Your task to perform on an android device: Open Amazon Image 0: 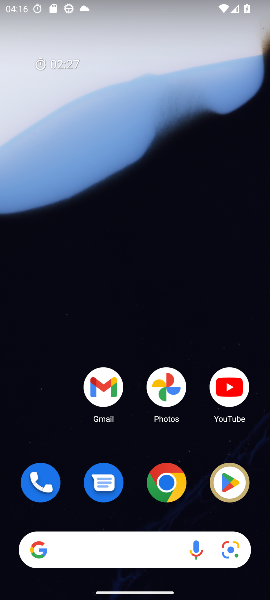
Step 0: drag from (141, 506) to (158, 56)
Your task to perform on an android device: Open Amazon Image 1: 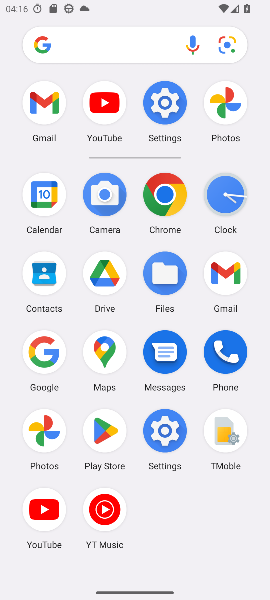
Step 1: click (163, 188)
Your task to perform on an android device: Open Amazon Image 2: 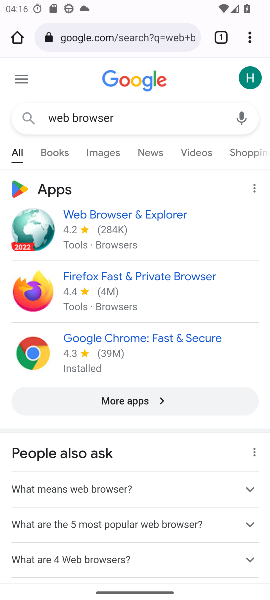
Step 2: click (146, 39)
Your task to perform on an android device: Open Amazon Image 3: 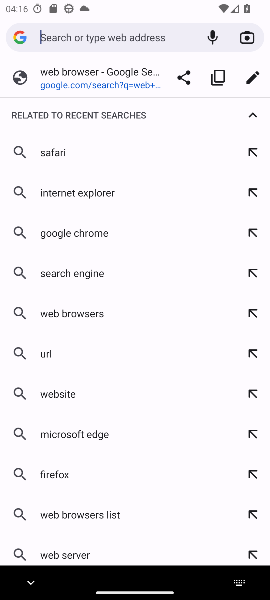
Step 3: type " Amazon"
Your task to perform on an android device: Open Amazon Image 4: 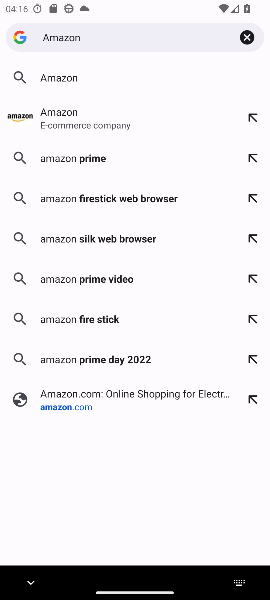
Step 4: click (51, 72)
Your task to perform on an android device: Open Amazon Image 5: 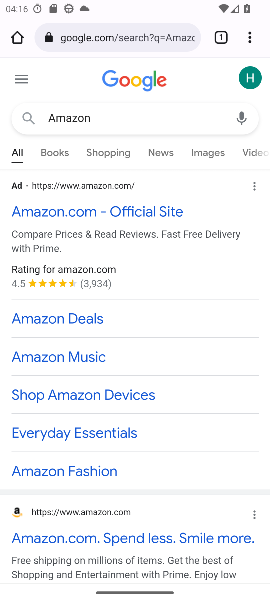
Step 5: click (49, 212)
Your task to perform on an android device: Open Amazon Image 6: 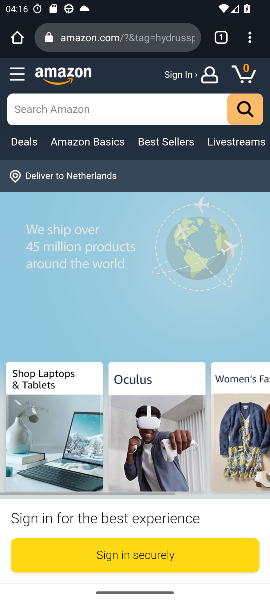
Step 6: task complete